Your task to perform on an android device: open device folders in google photos Image 0: 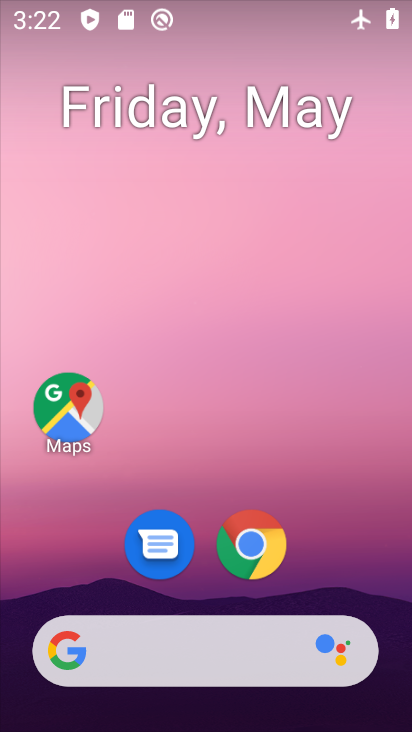
Step 0: drag from (283, 655) to (211, 124)
Your task to perform on an android device: open device folders in google photos Image 1: 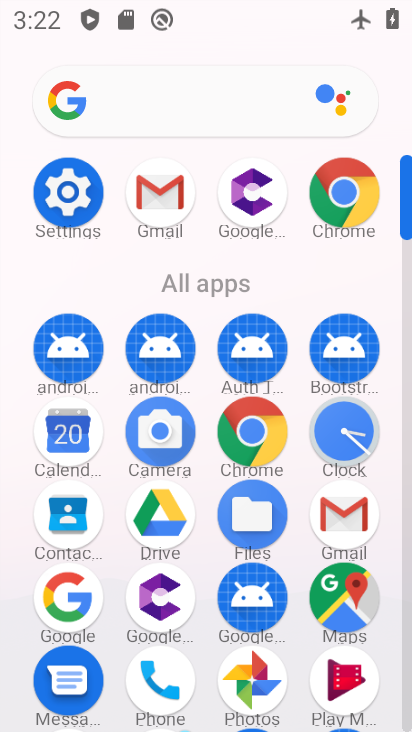
Step 1: click (242, 673)
Your task to perform on an android device: open device folders in google photos Image 2: 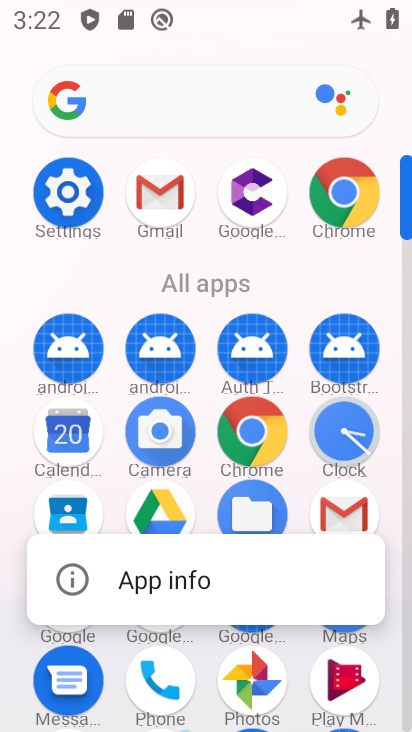
Step 2: click (243, 672)
Your task to perform on an android device: open device folders in google photos Image 3: 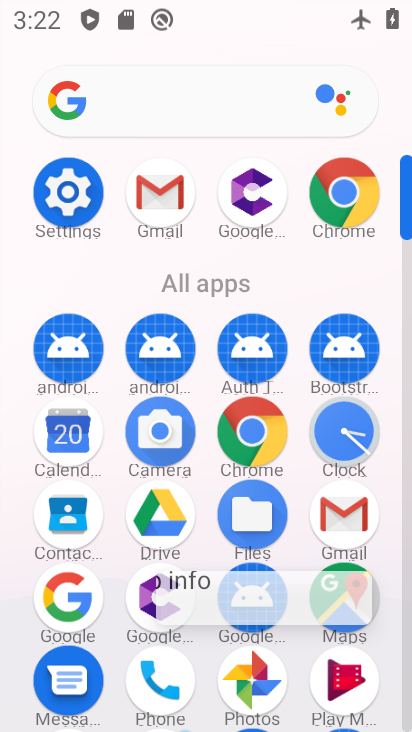
Step 3: click (243, 672)
Your task to perform on an android device: open device folders in google photos Image 4: 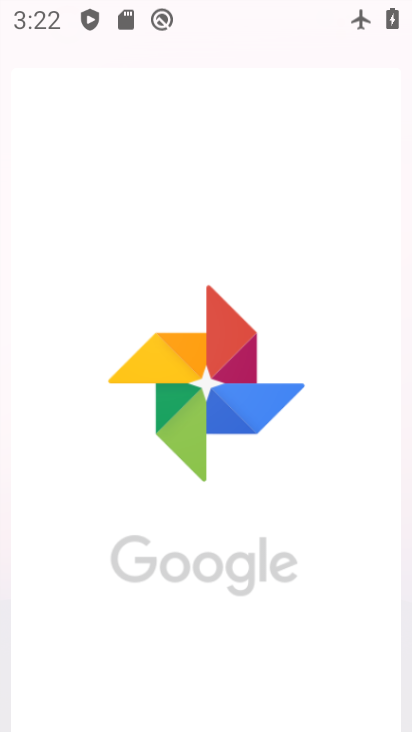
Step 4: click (243, 672)
Your task to perform on an android device: open device folders in google photos Image 5: 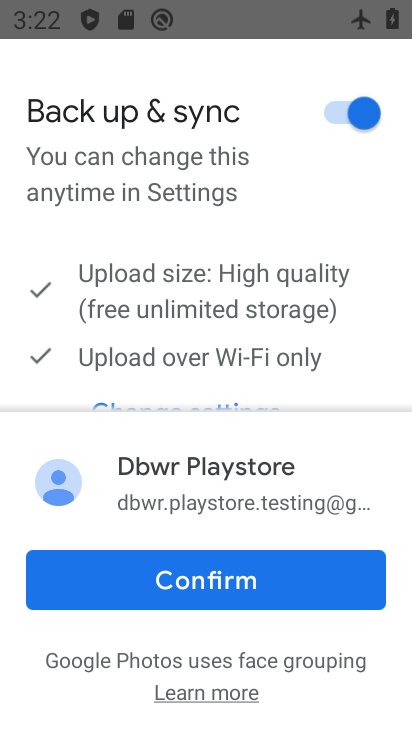
Step 5: click (224, 567)
Your task to perform on an android device: open device folders in google photos Image 6: 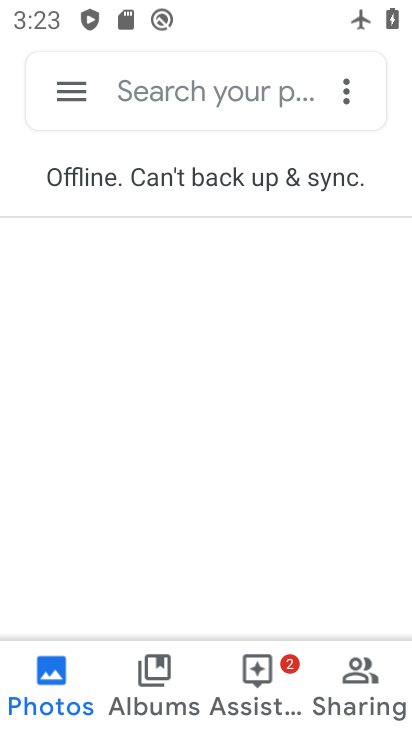
Step 6: task complete